Your task to perform on an android device: turn off notifications settings in the gmail app Image 0: 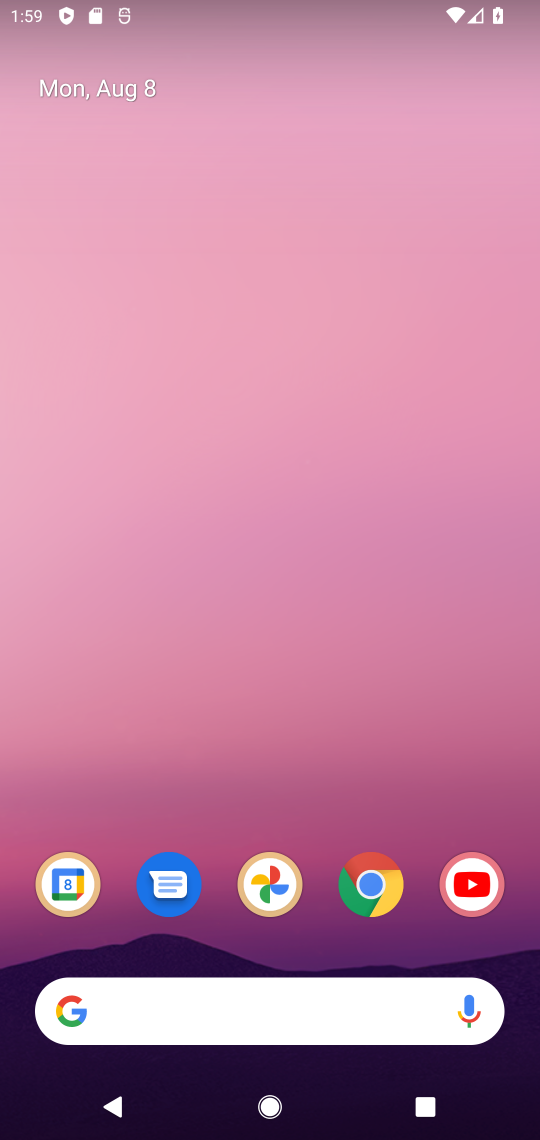
Step 0: drag from (322, 800) to (308, 11)
Your task to perform on an android device: turn off notifications settings in the gmail app Image 1: 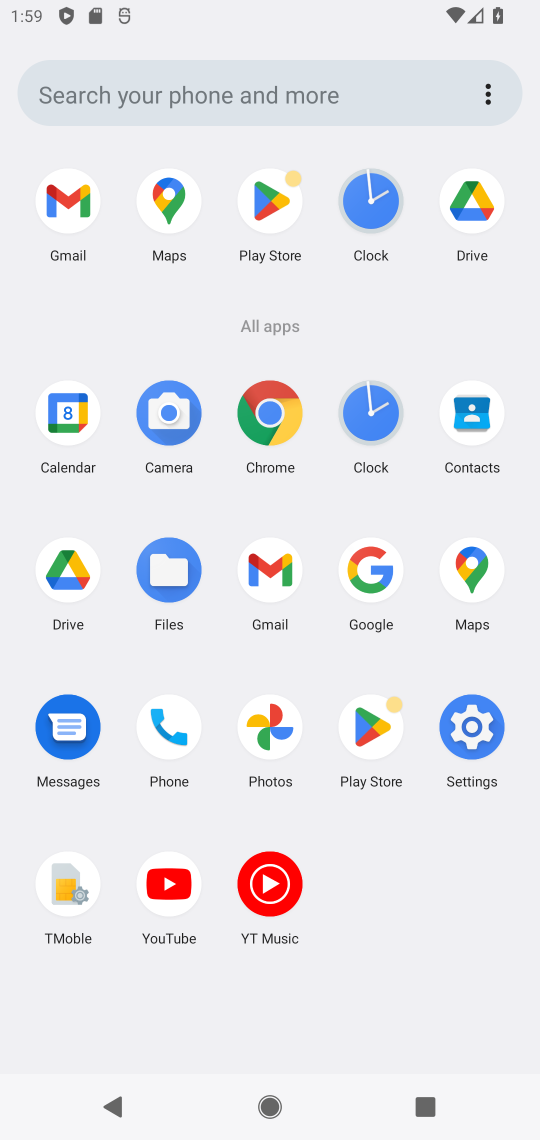
Step 1: click (69, 208)
Your task to perform on an android device: turn off notifications settings in the gmail app Image 2: 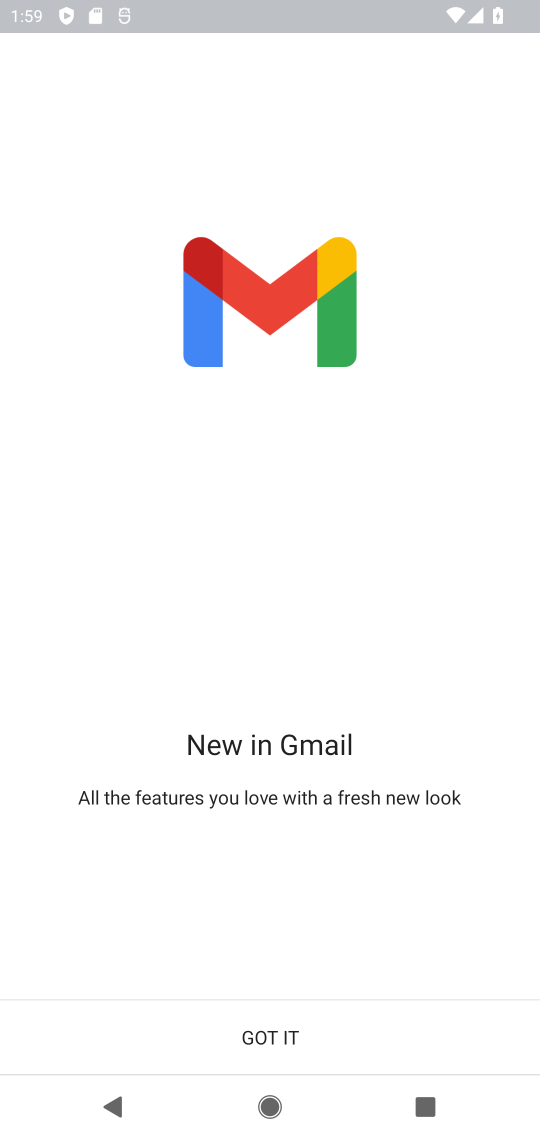
Step 2: click (269, 1025)
Your task to perform on an android device: turn off notifications settings in the gmail app Image 3: 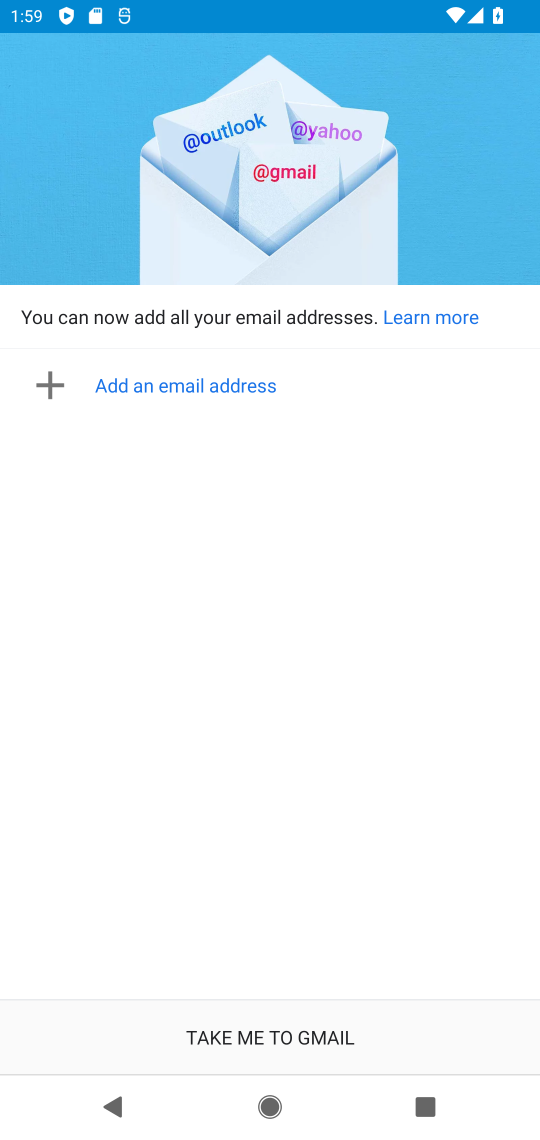
Step 3: click (256, 1033)
Your task to perform on an android device: turn off notifications settings in the gmail app Image 4: 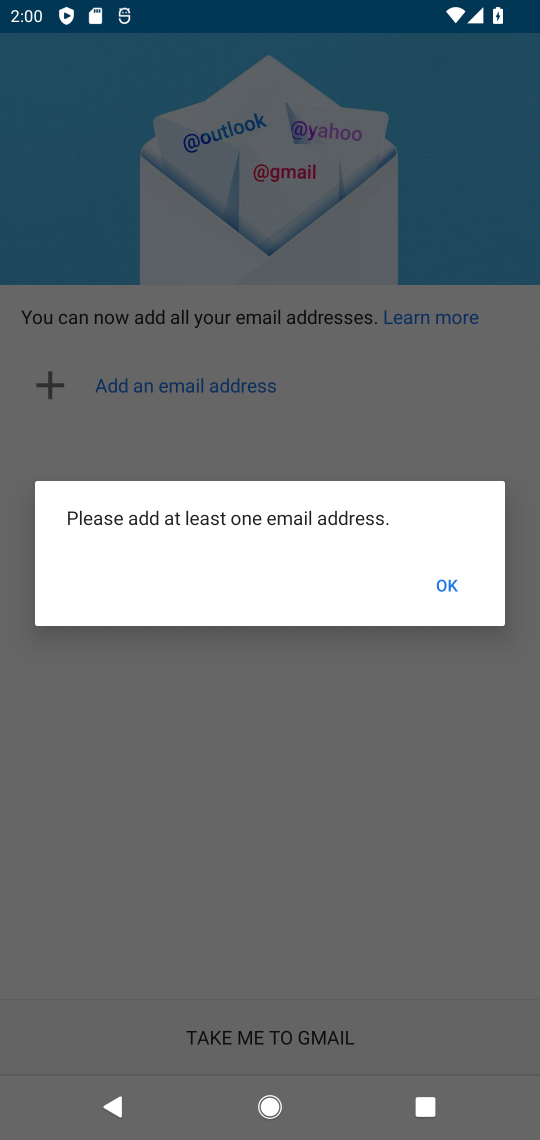
Step 4: click (453, 585)
Your task to perform on an android device: turn off notifications settings in the gmail app Image 5: 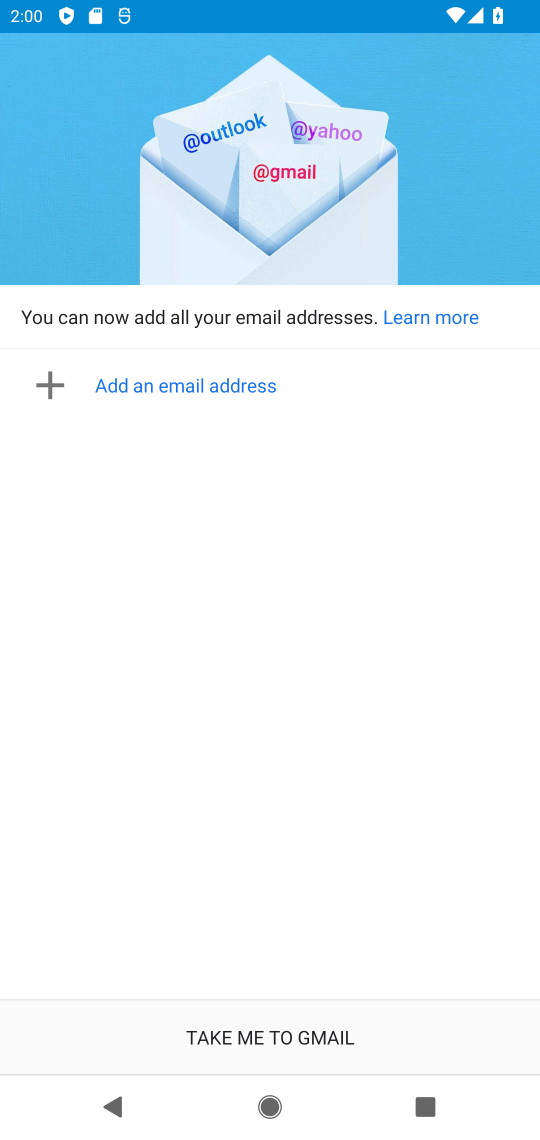
Step 5: task complete